Your task to perform on an android device: turn on improve location accuracy Image 0: 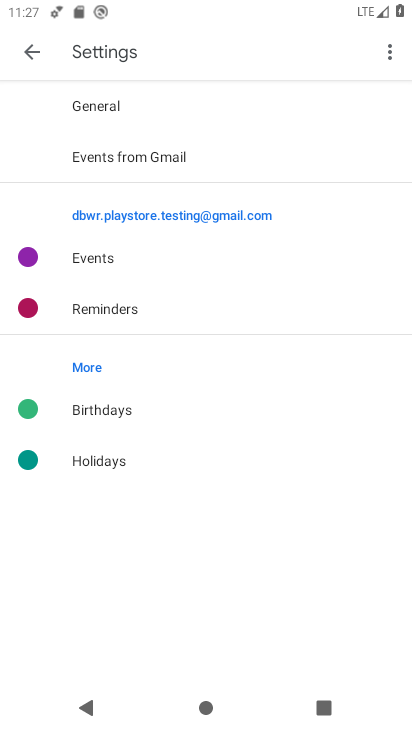
Step 0: press home button
Your task to perform on an android device: turn on improve location accuracy Image 1: 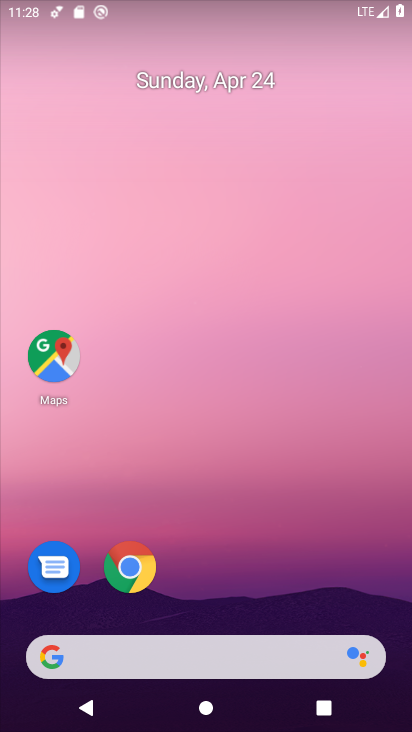
Step 1: drag from (250, 589) to (252, 0)
Your task to perform on an android device: turn on improve location accuracy Image 2: 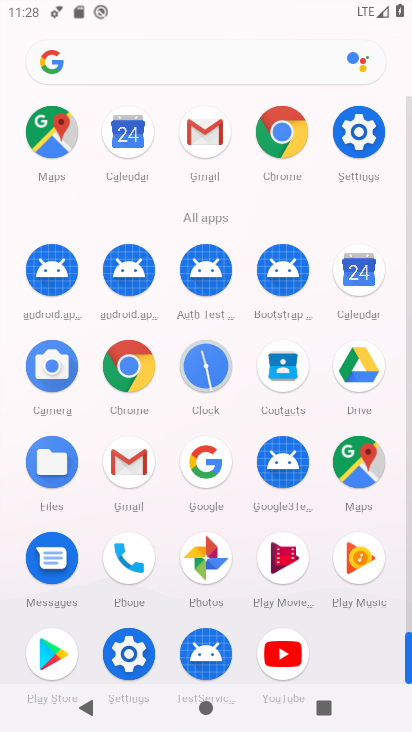
Step 2: click (365, 140)
Your task to perform on an android device: turn on improve location accuracy Image 3: 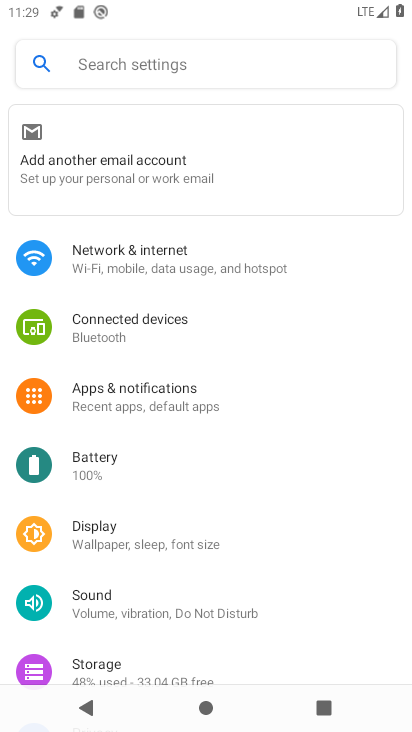
Step 3: drag from (217, 491) to (247, 313)
Your task to perform on an android device: turn on improve location accuracy Image 4: 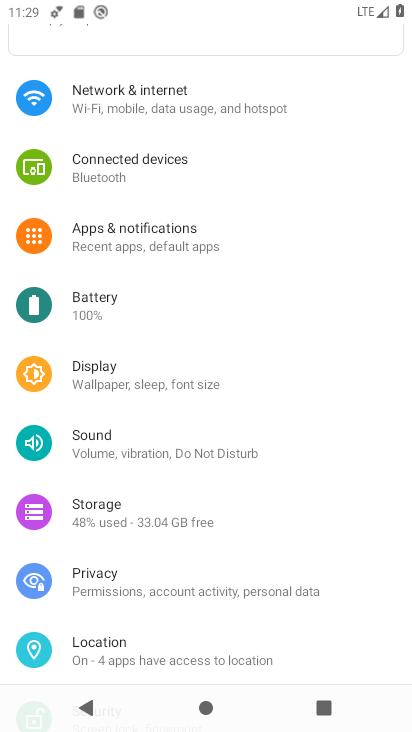
Step 4: click (163, 625)
Your task to perform on an android device: turn on improve location accuracy Image 5: 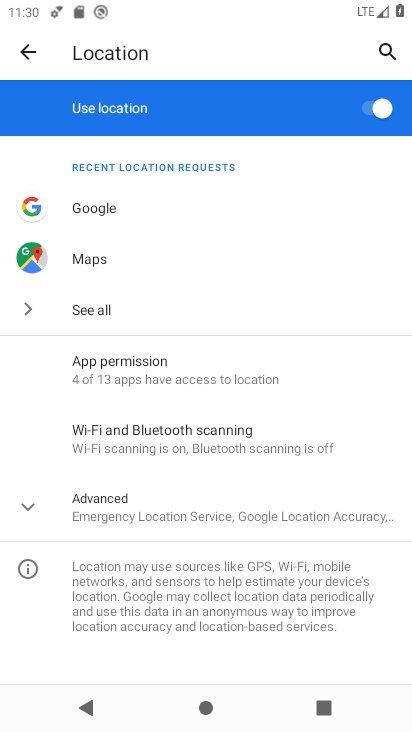
Step 5: click (185, 510)
Your task to perform on an android device: turn on improve location accuracy Image 6: 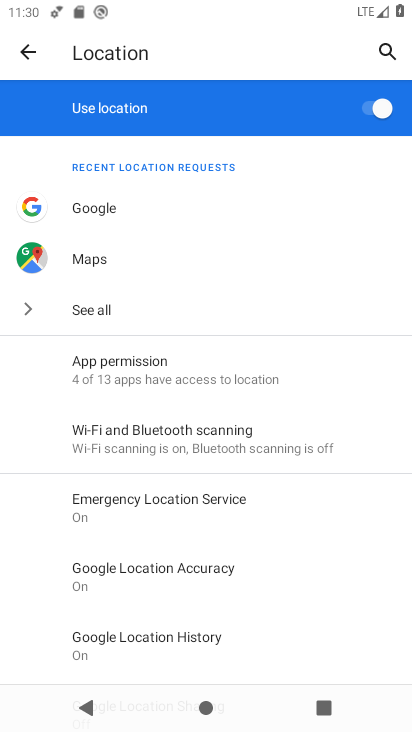
Step 6: click (198, 560)
Your task to perform on an android device: turn on improve location accuracy Image 7: 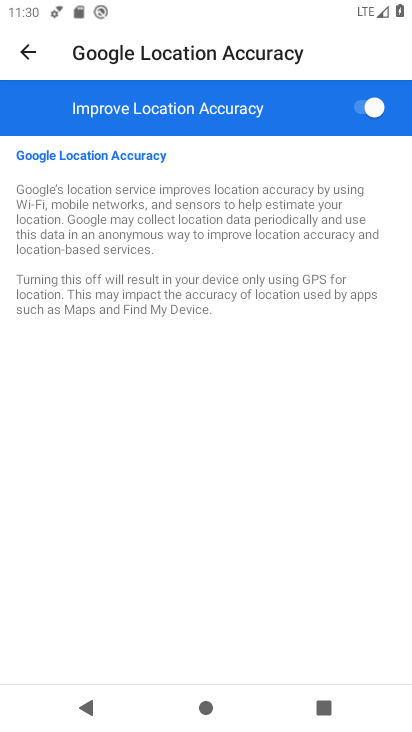
Step 7: task complete